Your task to perform on an android device: Open Android settings Image 0: 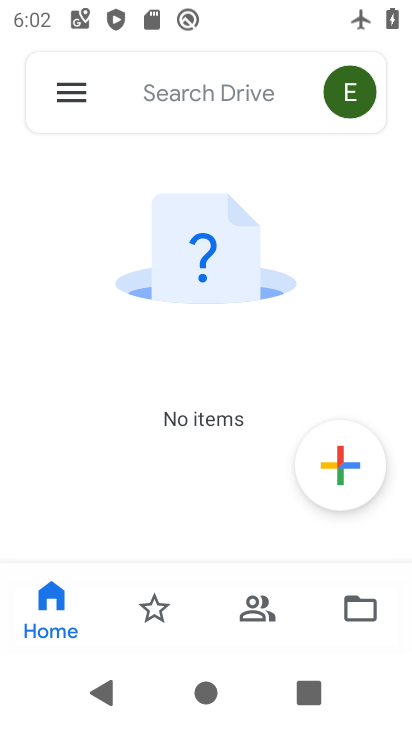
Step 0: press home button
Your task to perform on an android device: Open Android settings Image 1: 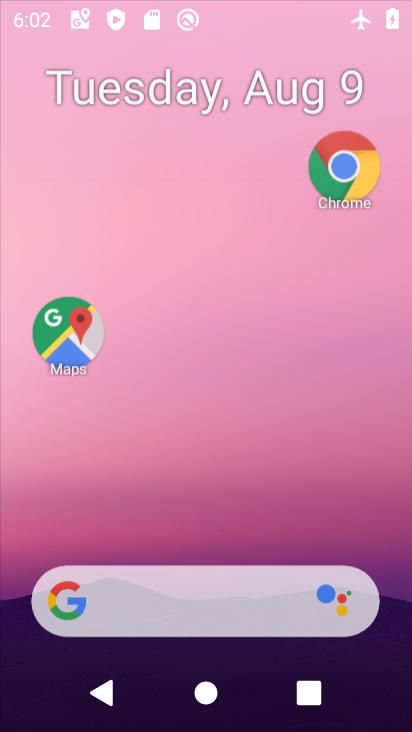
Step 1: drag from (223, 589) to (217, 92)
Your task to perform on an android device: Open Android settings Image 2: 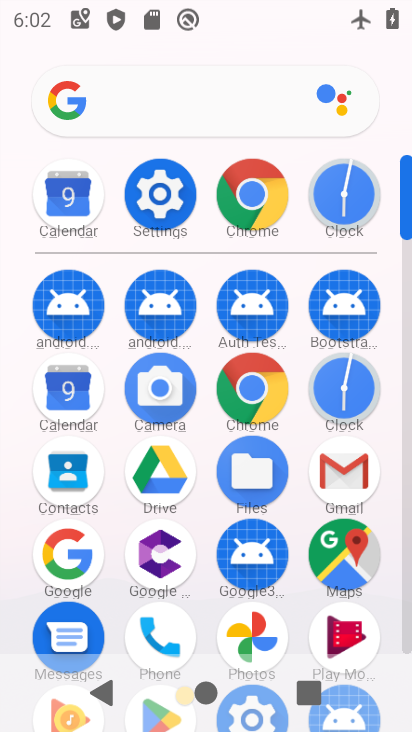
Step 2: drag from (208, 599) to (197, 317)
Your task to perform on an android device: Open Android settings Image 3: 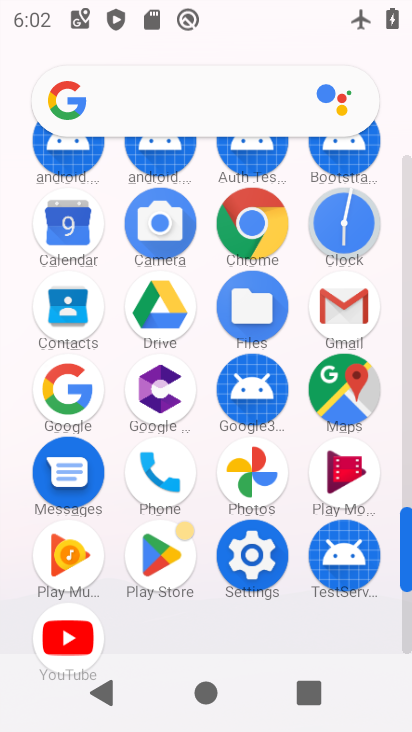
Step 3: drag from (215, 516) to (227, 203)
Your task to perform on an android device: Open Android settings Image 4: 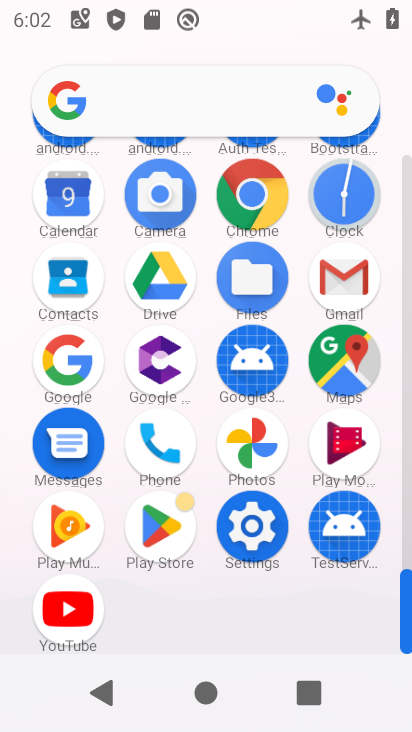
Step 4: click (236, 524)
Your task to perform on an android device: Open Android settings Image 5: 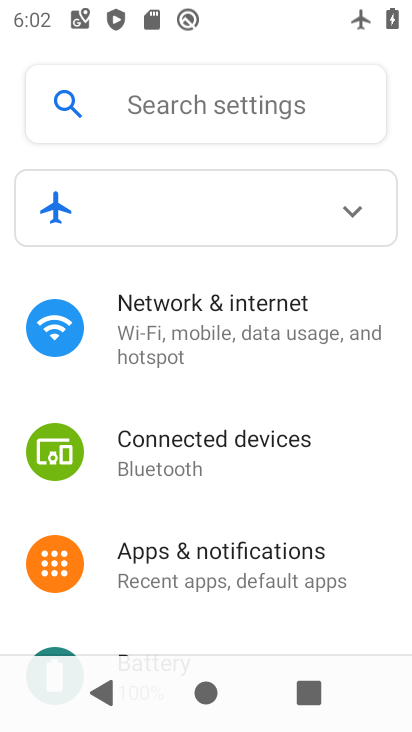
Step 5: drag from (237, 550) to (286, 162)
Your task to perform on an android device: Open Android settings Image 6: 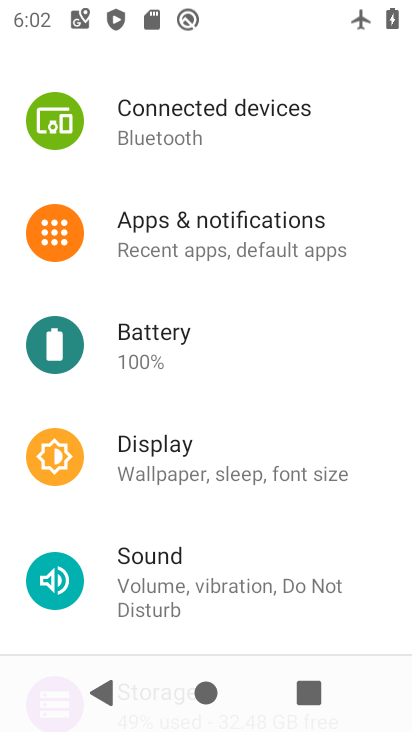
Step 6: drag from (227, 546) to (214, 290)
Your task to perform on an android device: Open Android settings Image 7: 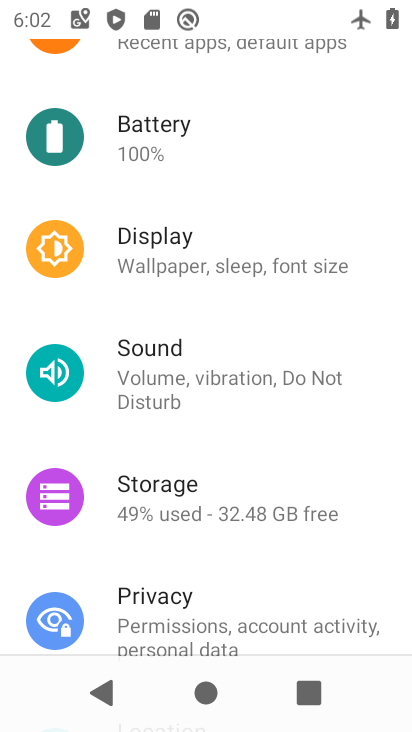
Step 7: drag from (215, 536) to (249, 208)
Your task to perform on an android device: Open Android settings Image 8: 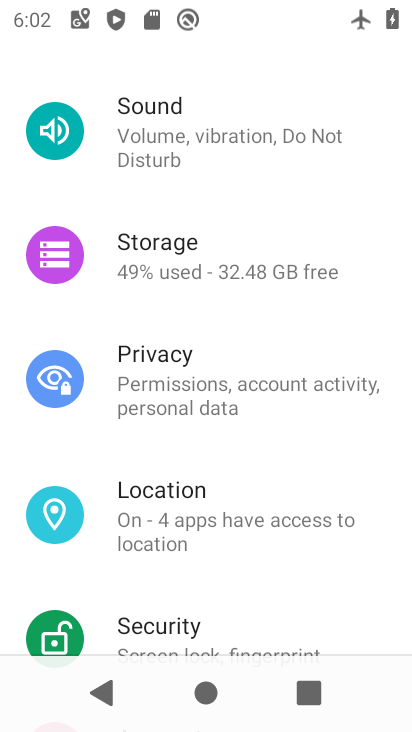
Step 8: drag from (230, 588) to (242, 158)
Your task to perform on an android device: Open Android settings Image 9: 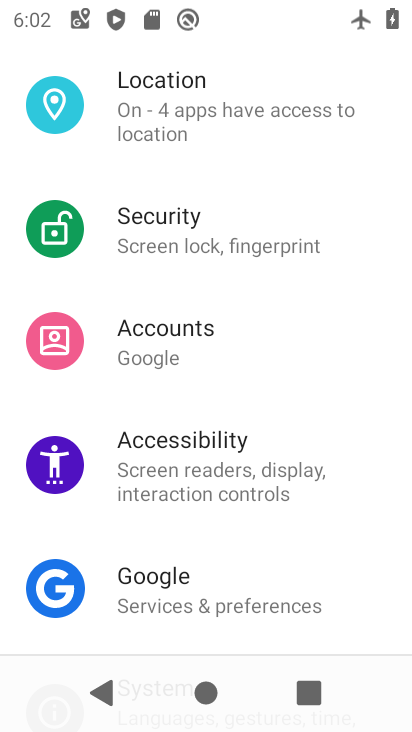
Step 9: drag from (236, 592) to (267, 129)
Your task to perform on an android device: Open Android settings Image 10: 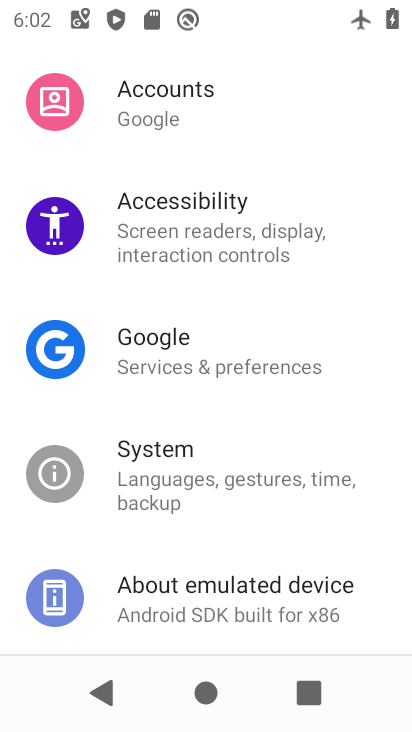
Step 10: drag from (215, 520) to (248, 286)
Your task to perform on an android device: Open Android settings Image 11: 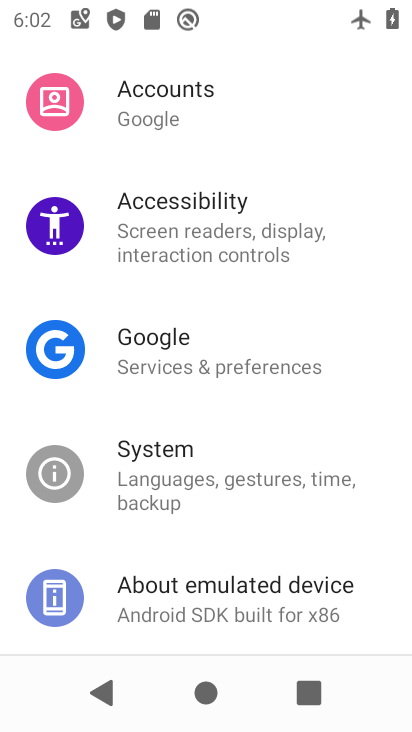
Step 11: click (230, 584)
Your task to perform on an android device: Open Android settings Image 12: 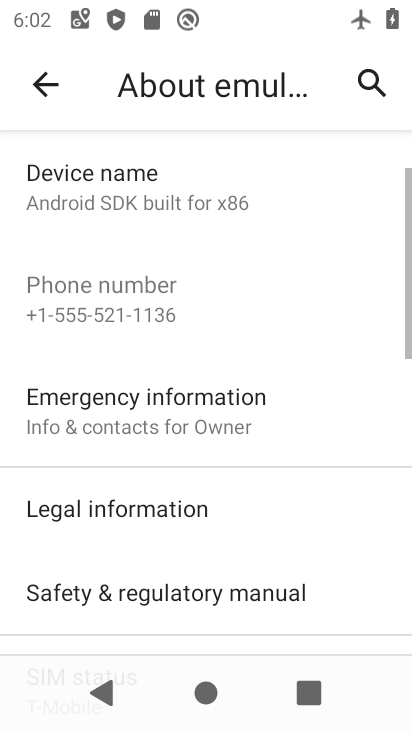
Step 12: drag from (230, 545) to (270, 177)
Your task to perform on an android device: Open Android settings Image 13: 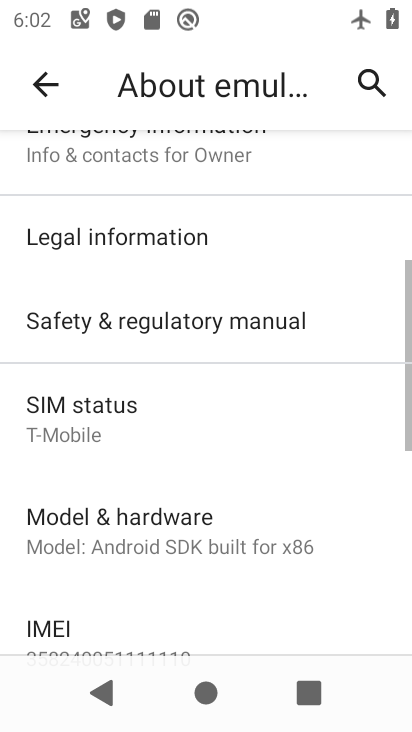
Step 13: drag from (237, 543) to (269, 410)
Your task to perform on an android device: Open Android settings Image 14: 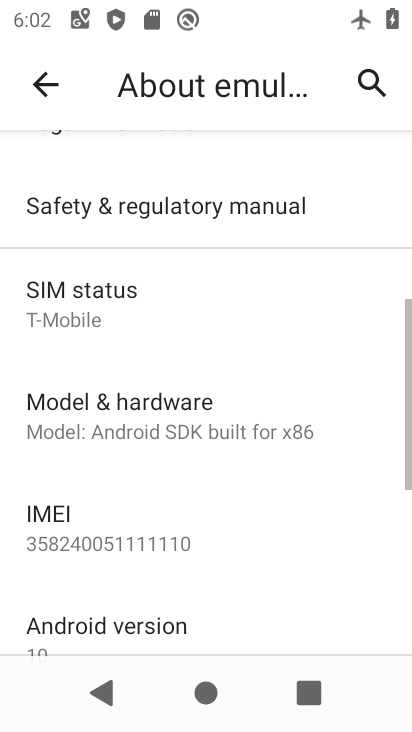
Step 14: drag from (164, 591) to (271, 107)
Your task to perform on an android device: Open Android settings Image 15: 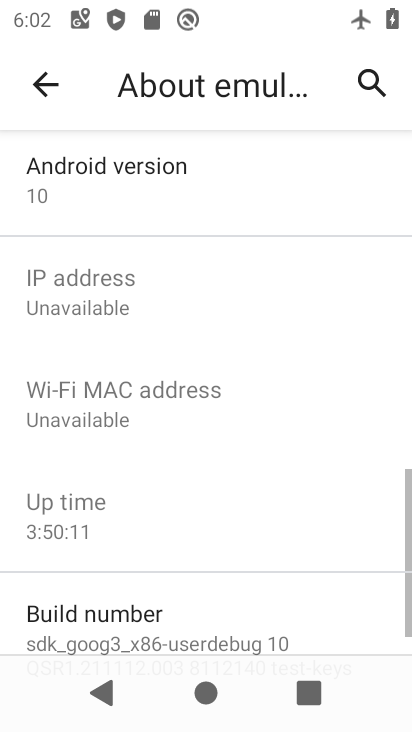
Step 15: click (125, 195)
Your task to perform on an android device: Open Android settings Image 16: 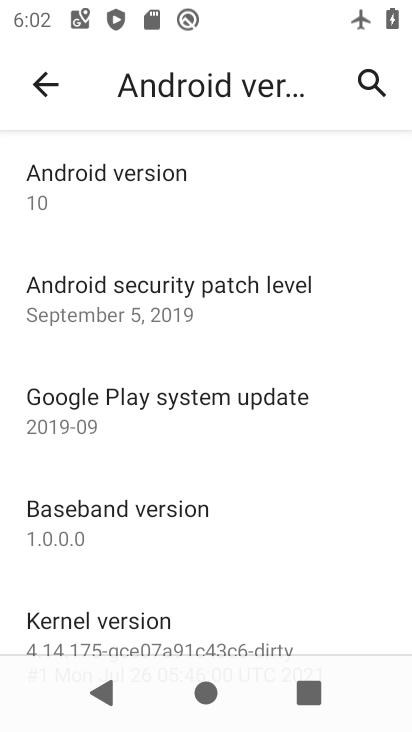
Step 16: click (164, 168)
Your task to perform on an android device: Open Android settings Image 17: 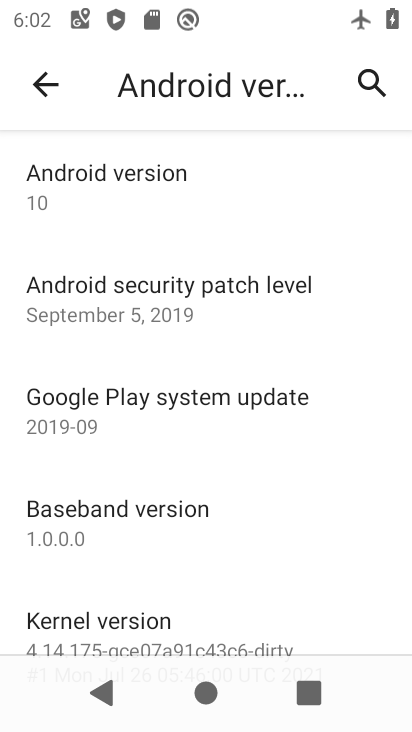
Step 17: task complete